Your task to perform on an android device: install app "Venmo" Image 0: 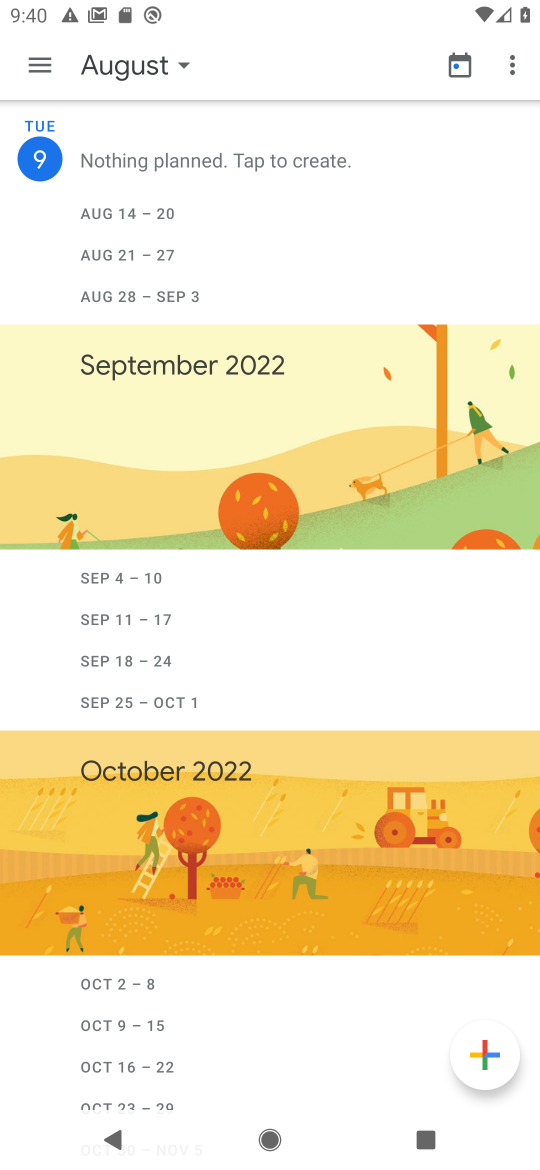
Step 0: press home button
Your task to perform on an android device: install app "Venmo" Image 1: 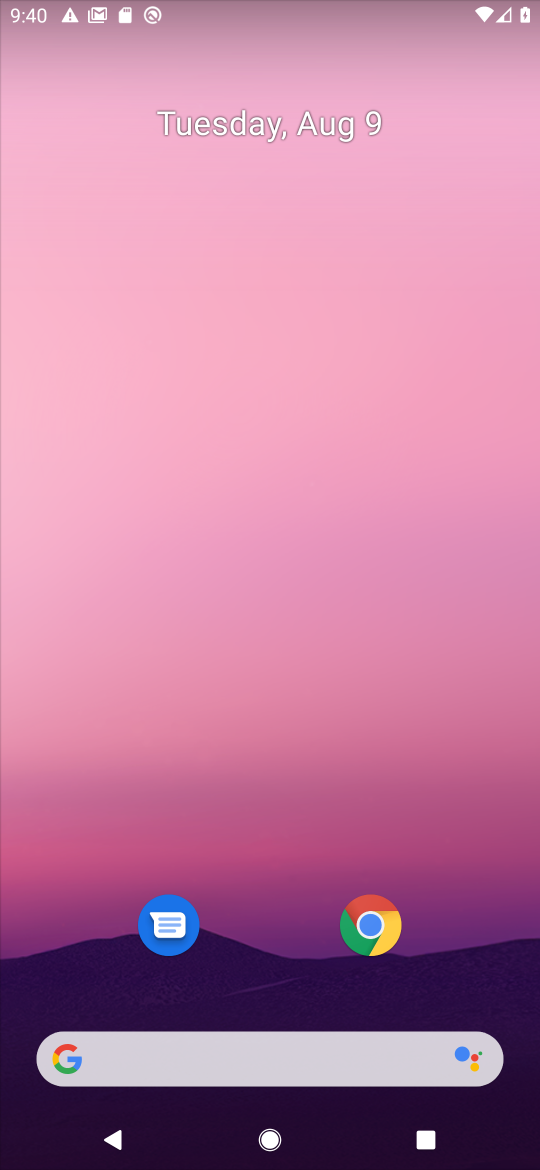
Step 1: drag from (227, 900) to (227, 429)
Your task to perform on an android device: install app "Venmo" Image 2: 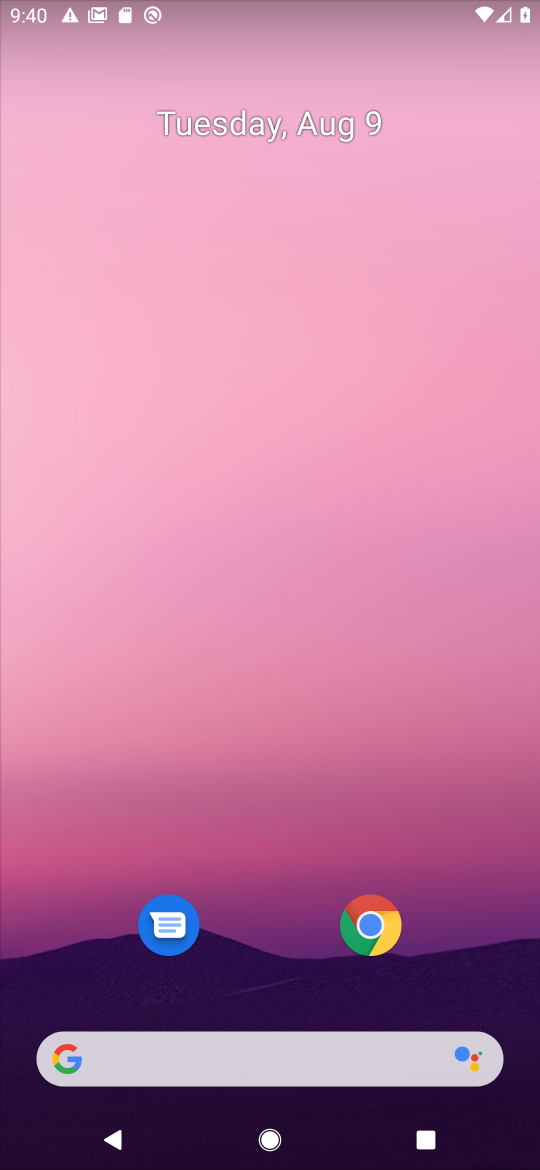
Step 2: drag from (276, 559) to (292, 56)
Your task to perform on an android device: install app "Venmo" Image 3: 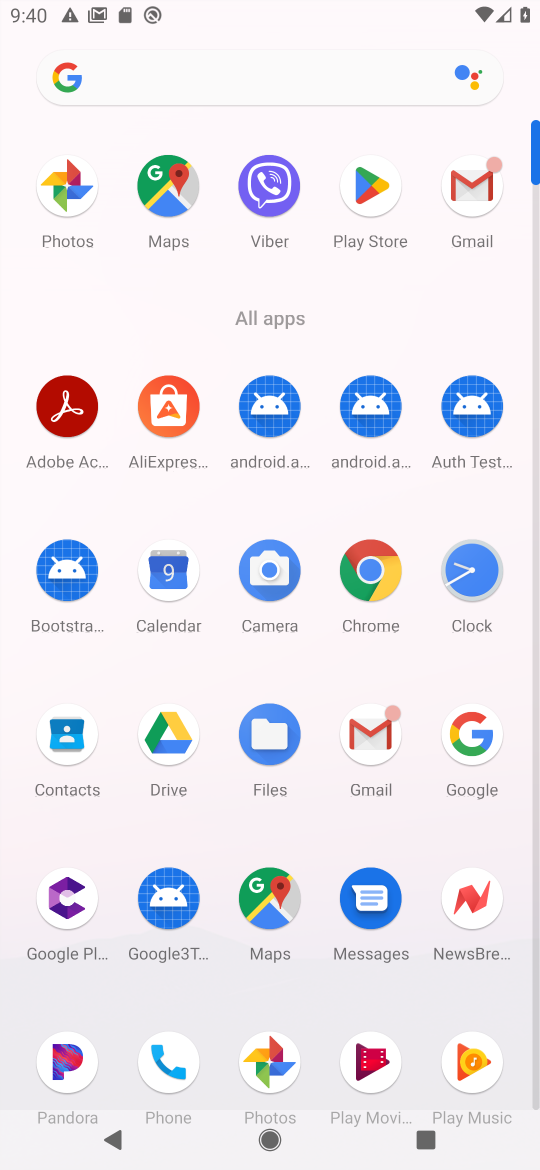
Step 3: click (382, 184)
Your task to perform on an android device: install app "Venmo" Image 4: 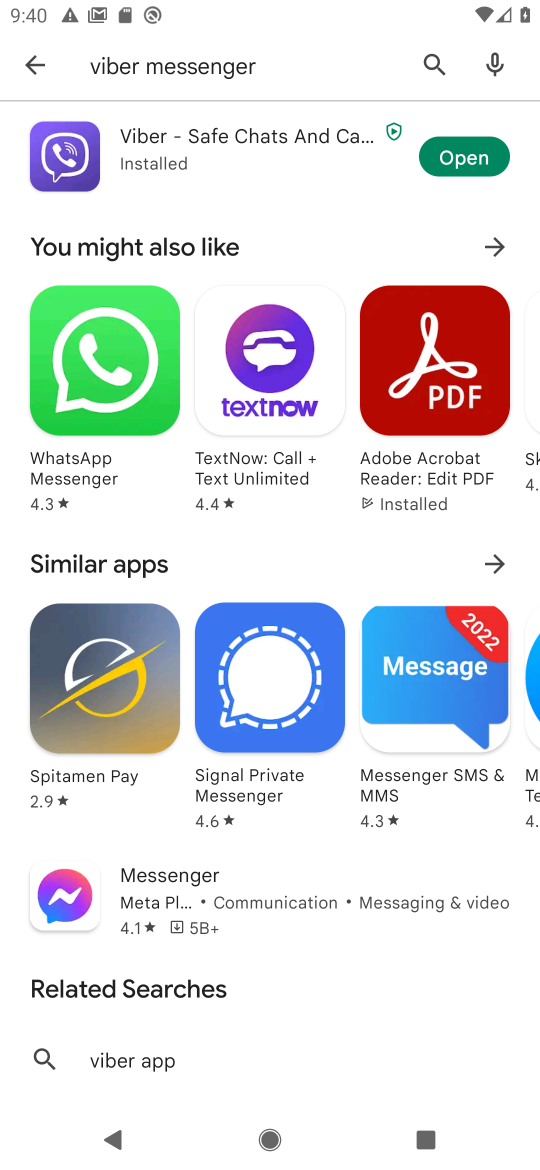
Step 4: click (26, 62)
Your task to perform on an android device: install app "Venmo" Image 5: 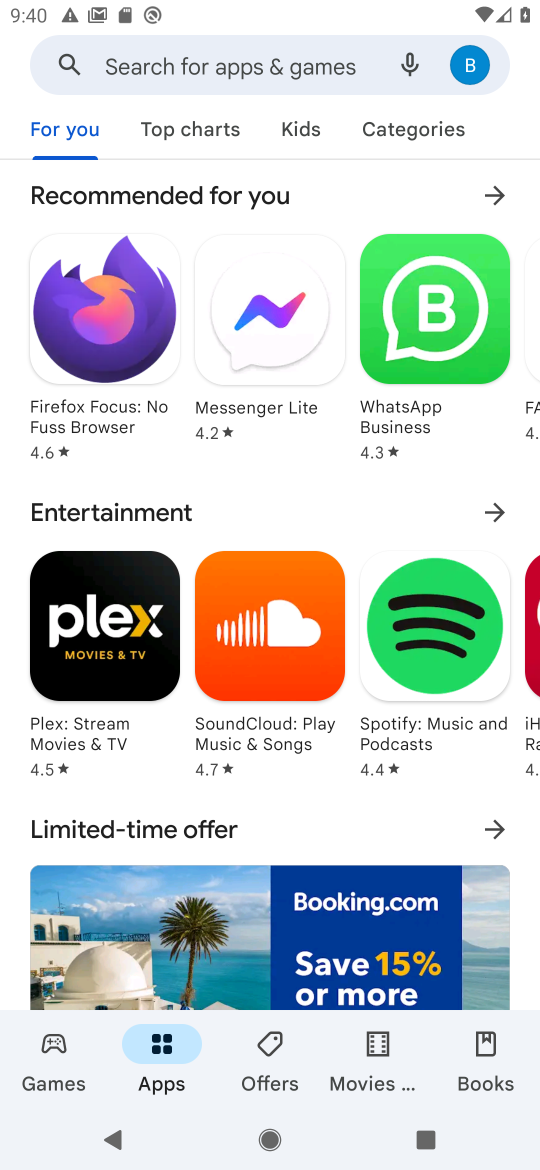
Step 5: click (220, 68)
Your task to perform on an android device: install app "Venmo" Image 6: 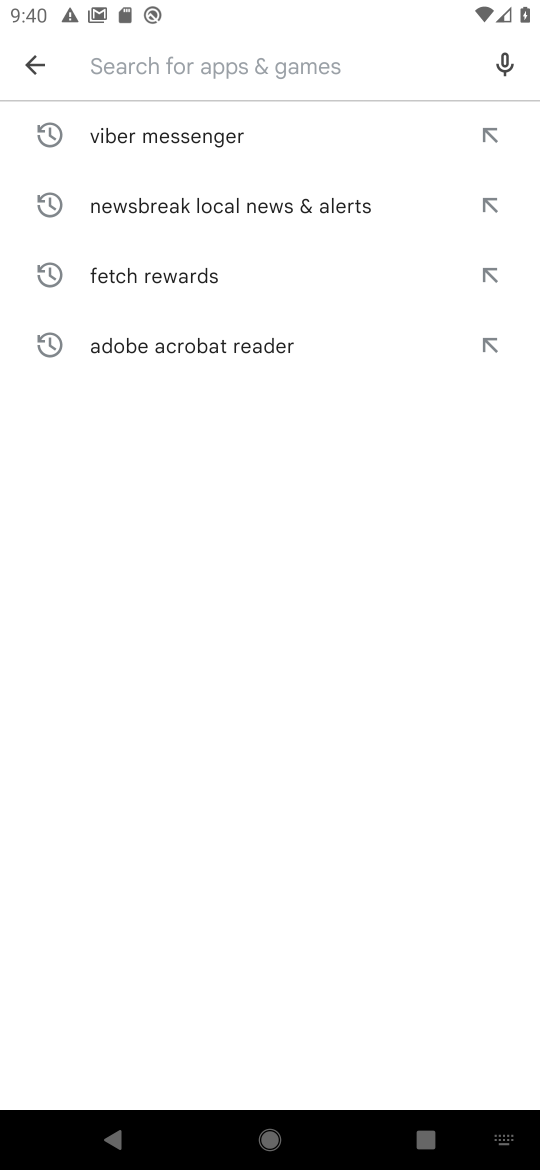
Step 6: type "Venmo"
Your task to perform on an android device: install app "Venmo" Image 7: 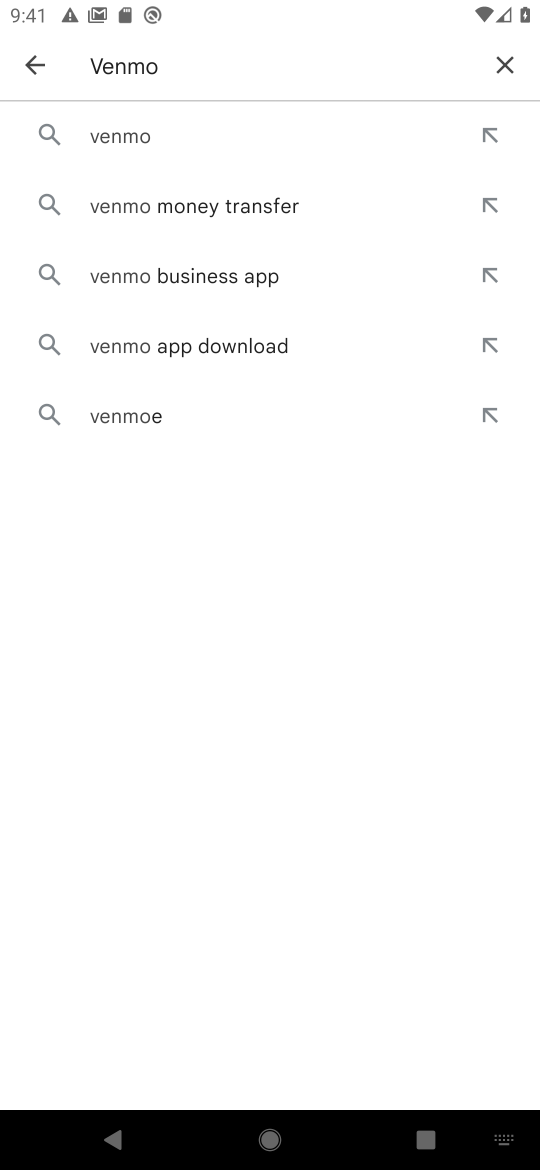
Step 7: click (150, 143)
Your task to perform on an android device: install app "Venmo" Image 8: 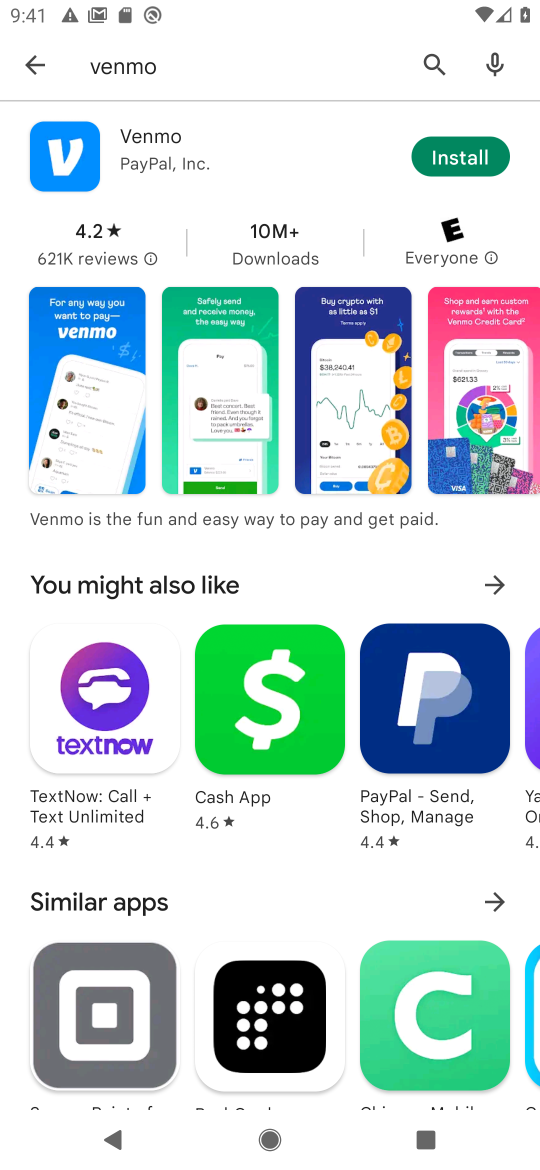
Step 8: click (481, 162)
Your task to perform on an android device: install app "Venmo" Image 9: 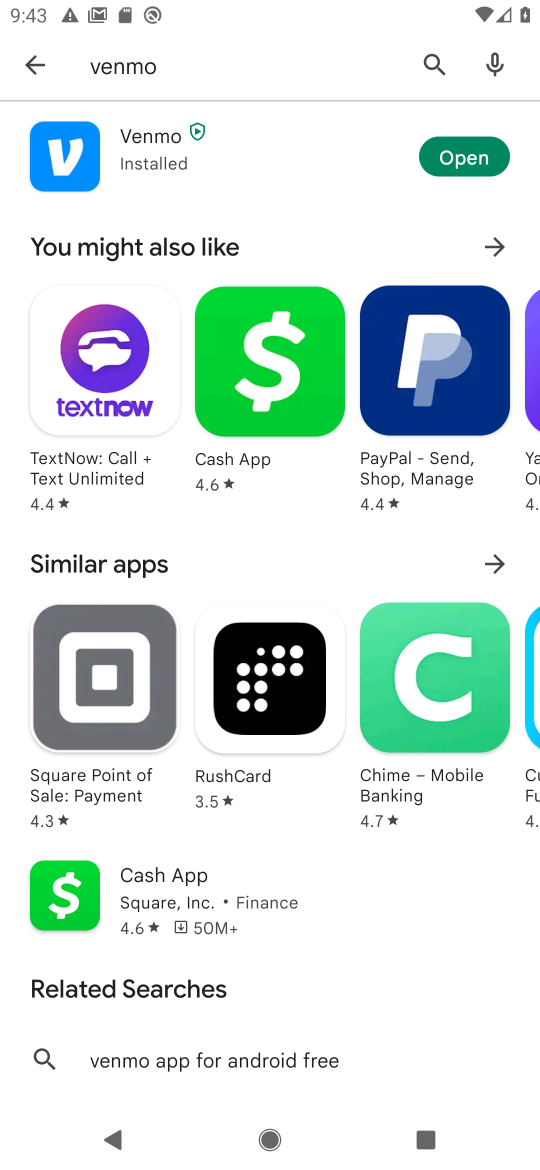
Step 9: click (470, 151)
Your task to perform on an android device: install app "Venmo" Image 10: 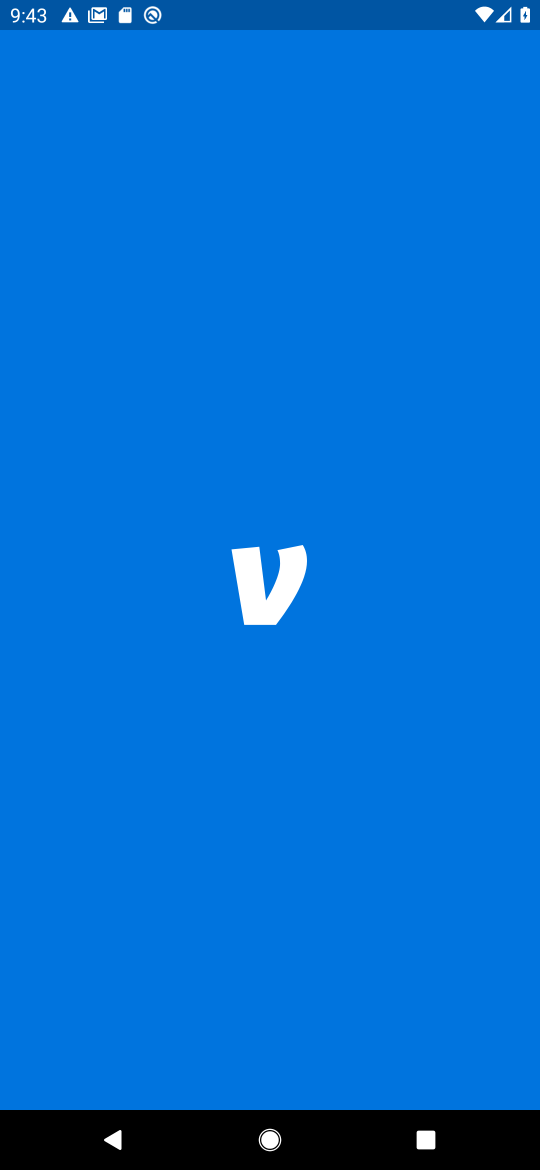
Step 10: task complete